Your task to perform on an android device: Set the phone to "Do not disturb". Image 0: 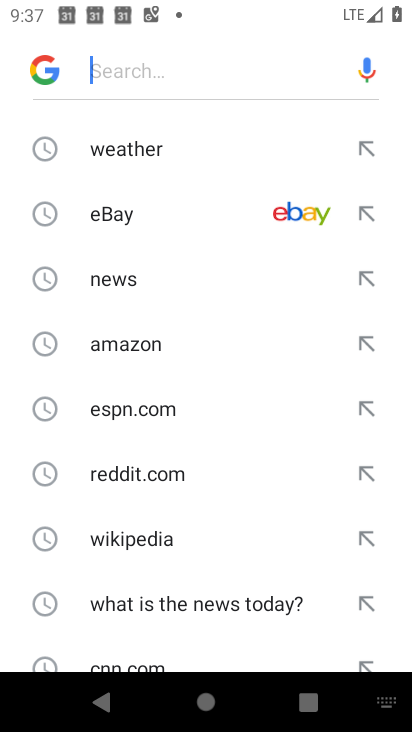
Step 0: press home button
Your task to perform on an android device: Set the phone to "Do not disturb". Image 1: 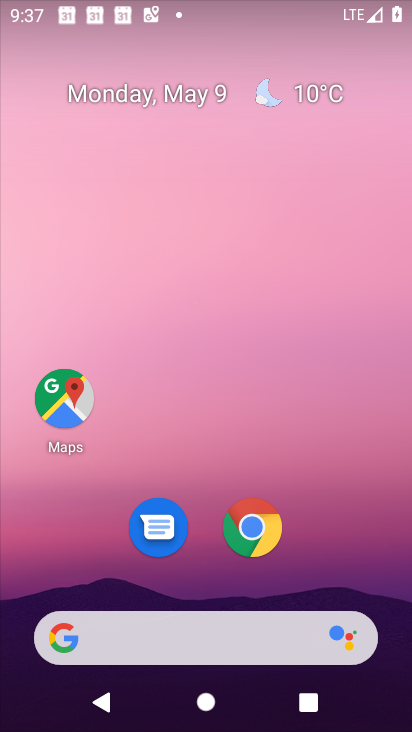
Step 1: drag from (196, 579) to (265, 18)
Your task to perform on an android device: Set the phone to "Do not disturb". Image 2: 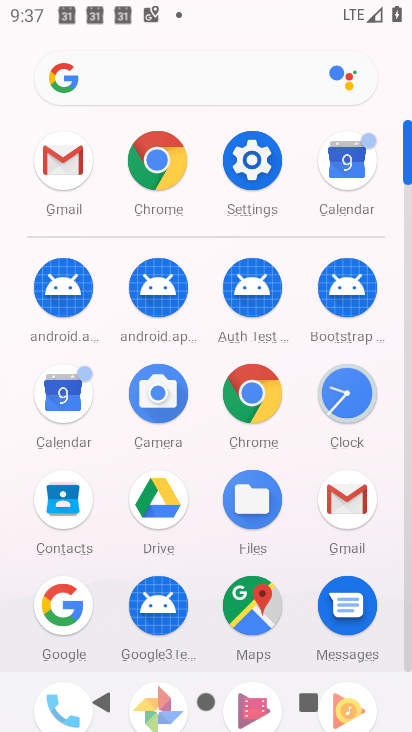
Step 2: click (259, 185)
Your task to perform on an android device: Set the phone to "Do not disturb". Image 3: 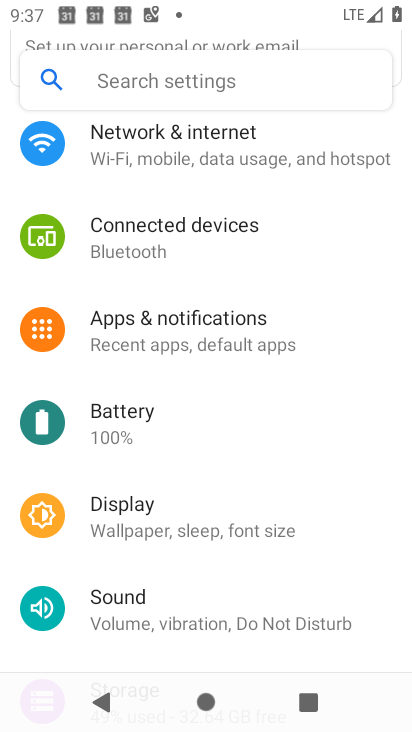
Step 3: click (168, 612)
Your task to perform on an android device: Set the phone to "Do not disturb". Image 4: 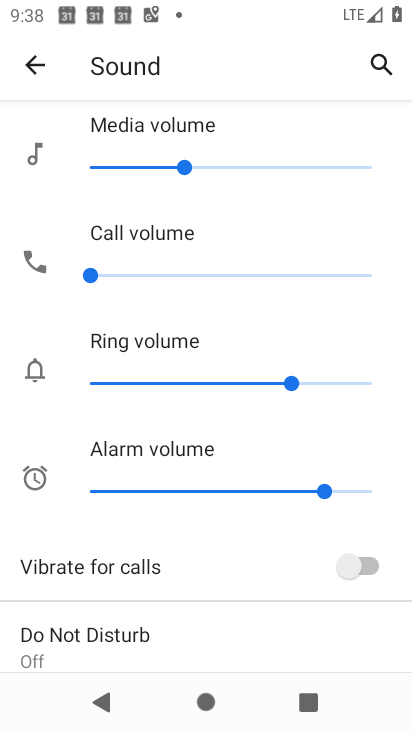
Step 4: drag from (156, 604) to (183, 425)
Your task to perform on an android device: Set the phone to "Do not disturb". Image 5: 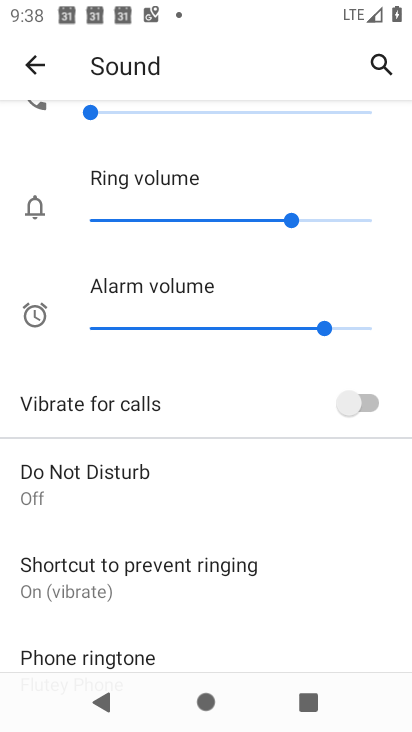
Step 5: click (118, 486)
Your task to perform on an android device: Set the phone to "Do not disturb". Image 6: 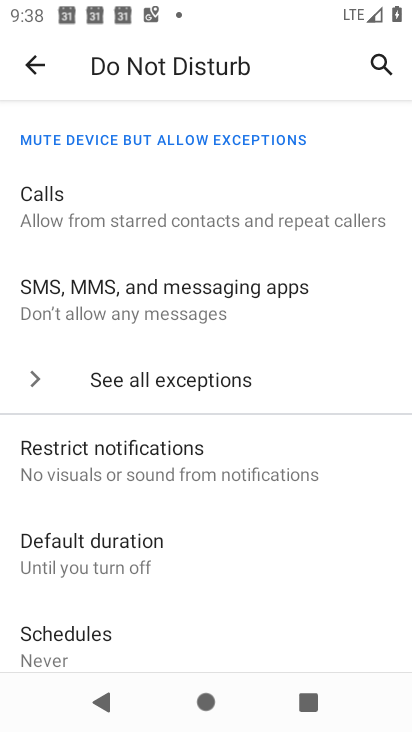
Step 6: drag from (151, 569) to (223, 209)
Your task to perform on an android device: Set the phone to "Do not disturb". Image 7: 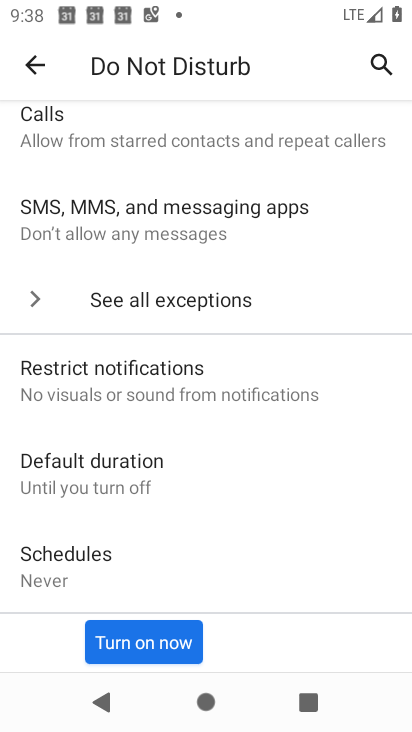
Step 7: click (138, 645)
Your task to perform on an android device: Set the phone to "Do not disturb". Image 8: 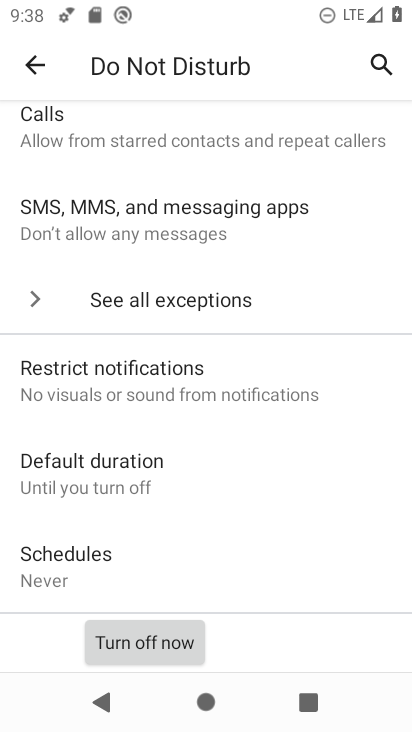
Step 8: task complete